Your task to perform on an android device: Open location settings Image 0: 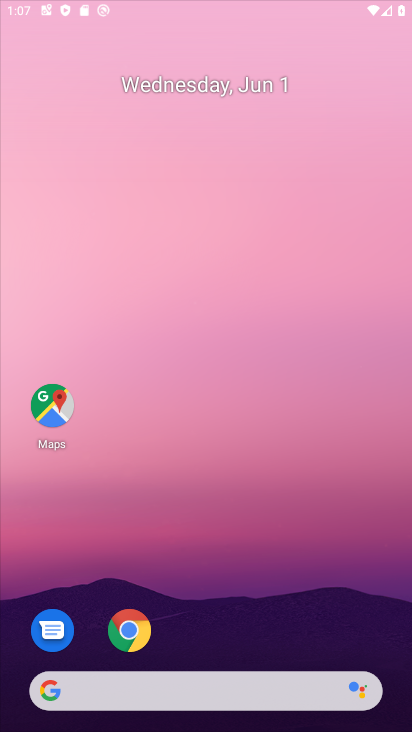
Step 0: press home button
Your task to perform on an android device: Open location settings Image 1: 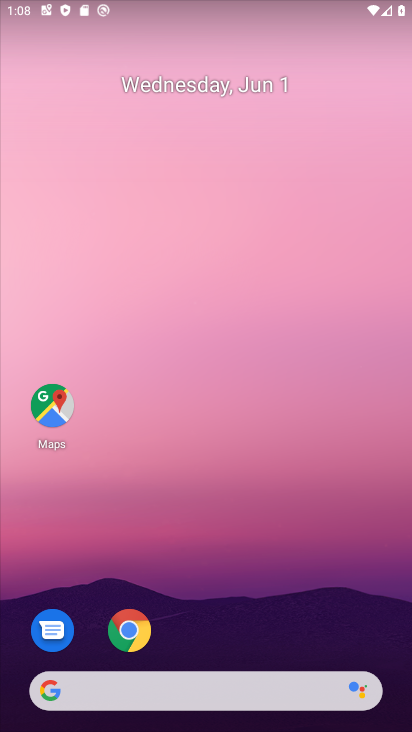
Step 1: drag from (246, 609) to (225, 152)
Your task to perform on an android device: Open location settings Image 2: 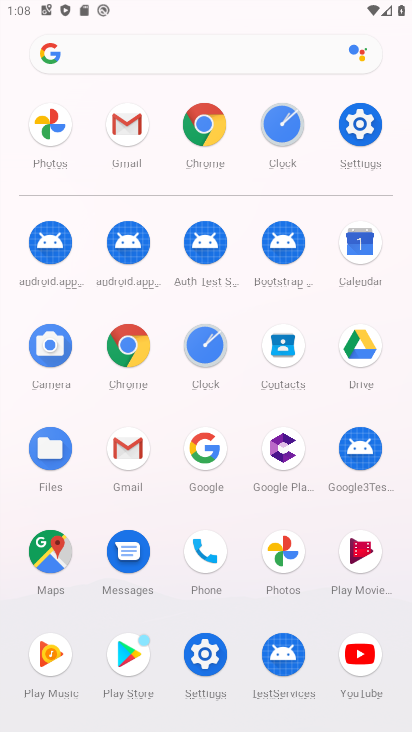
Step 2: click (355, 130)
Your task to perform on an android device: Open location settings Image 3: 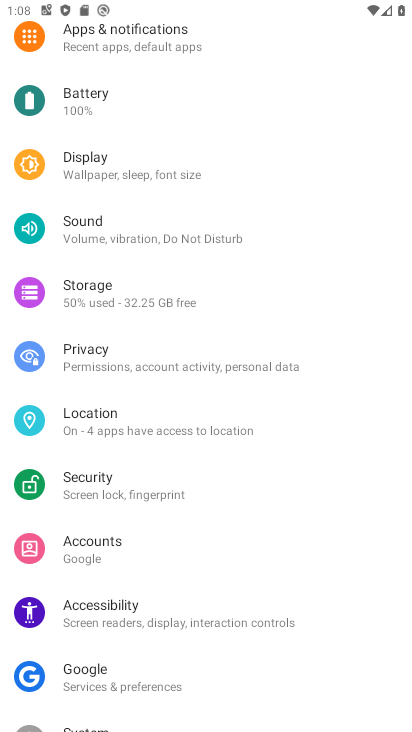
Step 3: click (90, 410)
Your task to perform on an android device: Open location settings Image 4: 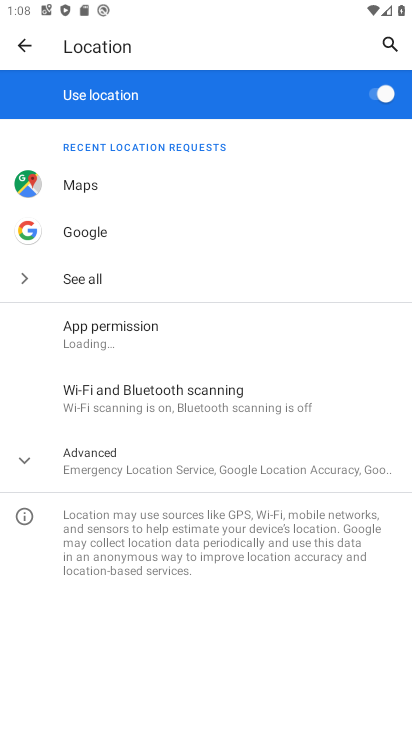
Step 4: click (81, 461)
Your task to perform on an android device: Open location settings Image 5: 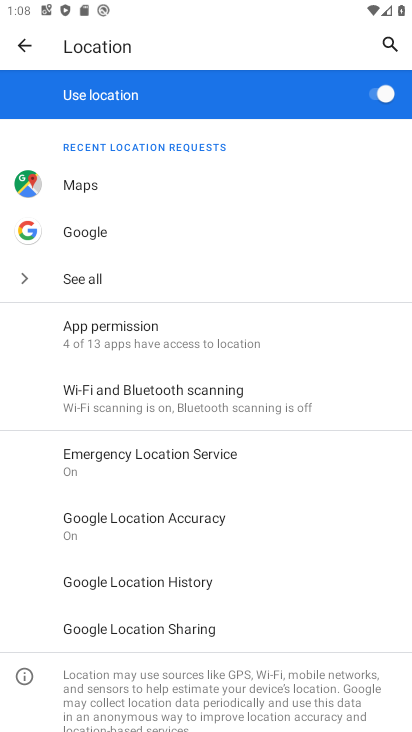
Step 5: task complete